Your task to perform on an android device: Check the news Image 0: 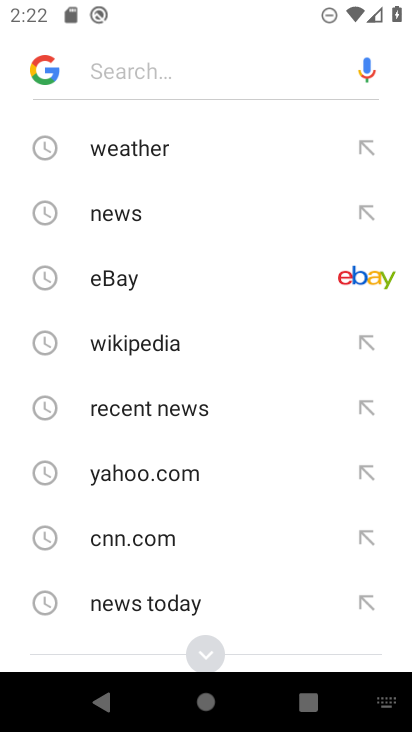
Step 0: press home button
Your task to perform on an android device: Check the news Image 1: 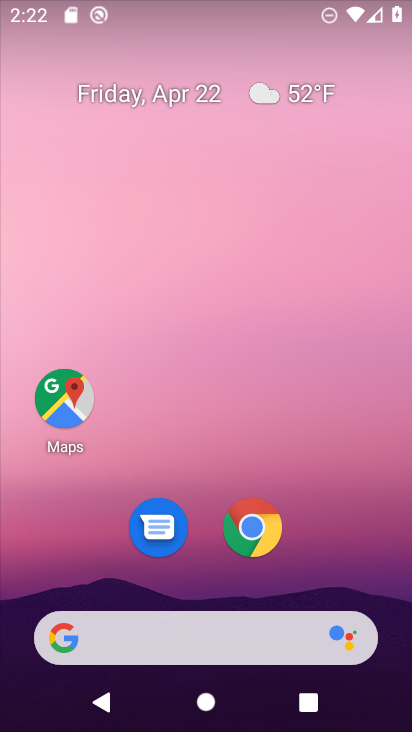
Step 1: drag from (222, 569) to (218, 110)
Your task to perform on an android device: Check the news Image 2: 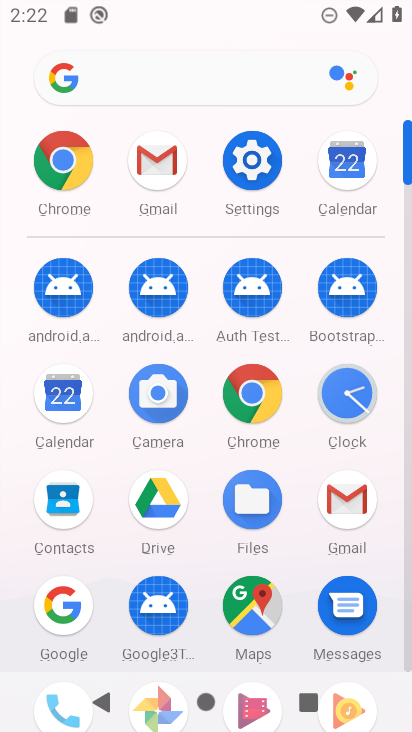
Step 2: click (251, 399)
Your task to perform on an android device: Check the news Image 3: 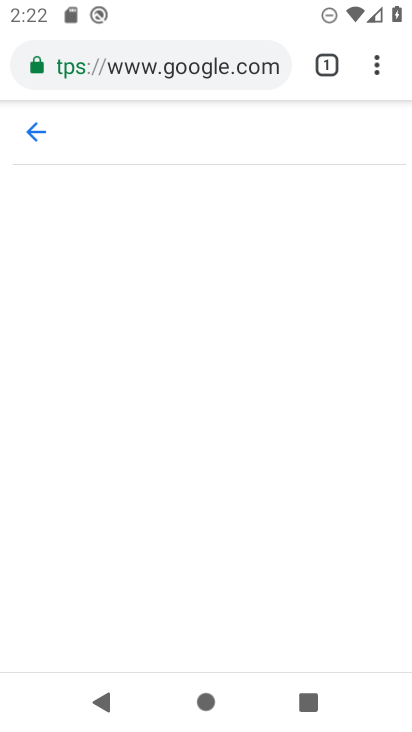
Step 3: click (75, 65)
Your task to perform on an android device: Check the news Image 4: 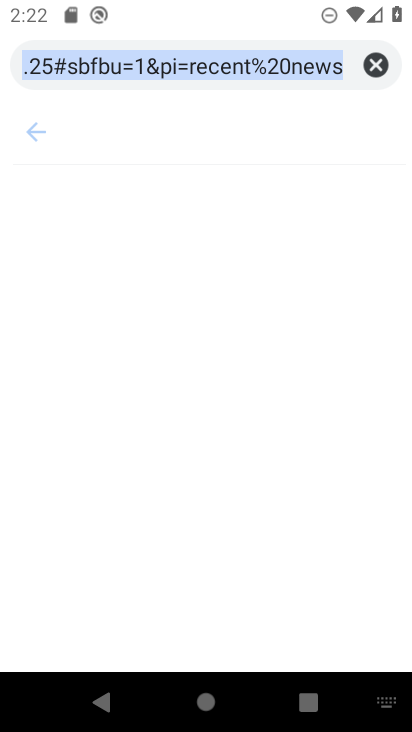
Step 4: click (371, 58)
Your task to perform on an android device: Check the news Image 5: 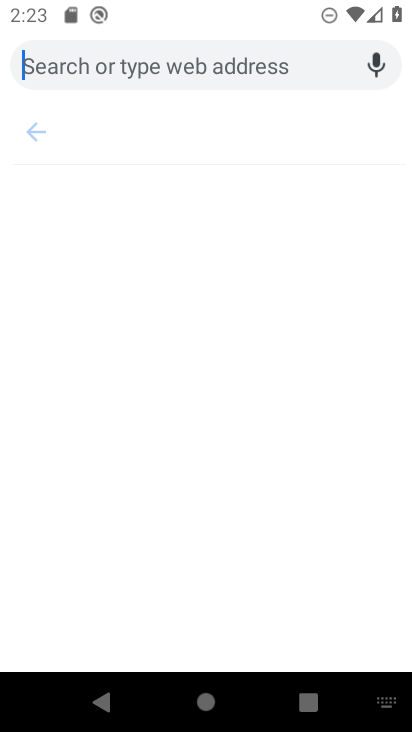
Step 5: type " news"
Your task to perform on an android device: Check the news Image 6: 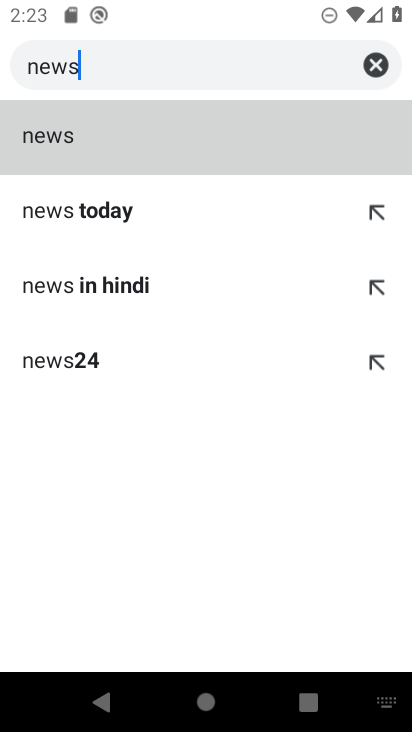
Step 6: click (75, 141)
Your task to perform on an android device: Check the news Image 7: 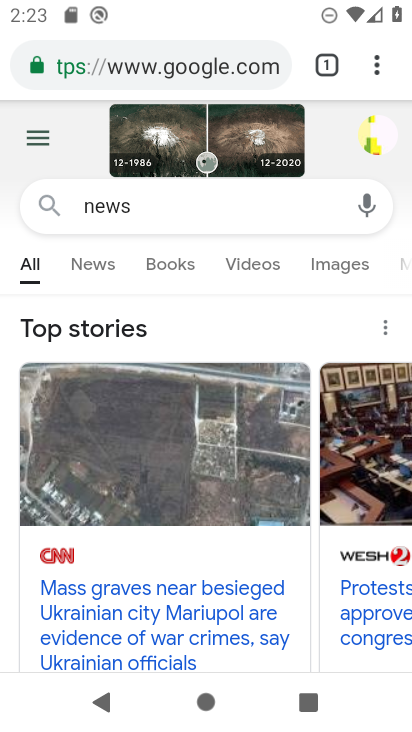
Step 7: click (103, 256)
Your task to perform on an android device: Check the news Image 8: 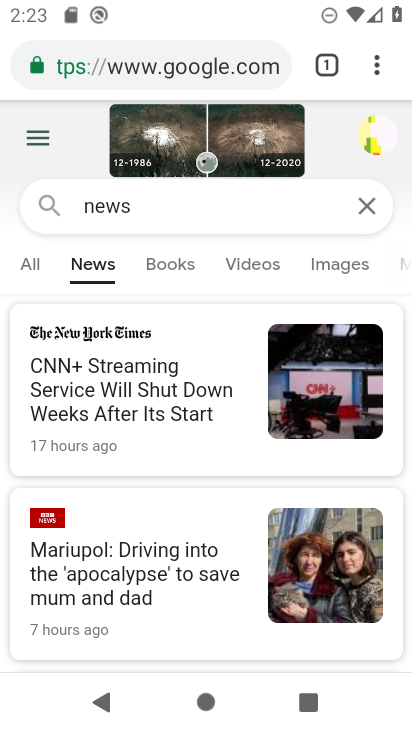
Step 8: task complete